Your task to perform on an android device: Open Android settings Image 0: 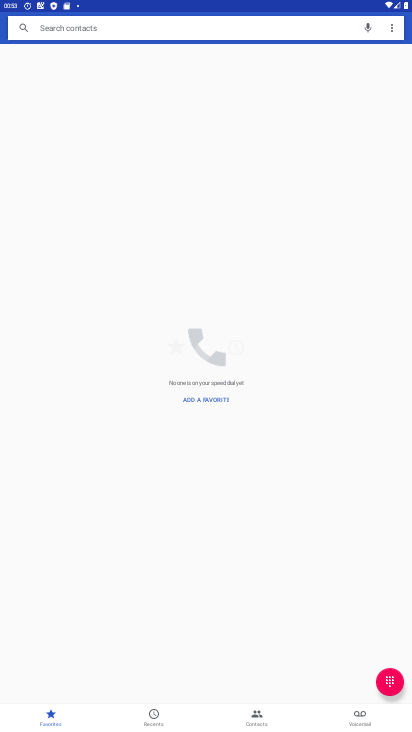
Step 0: press home button
Your task to perform on an android device: Open Android settings Image 1: 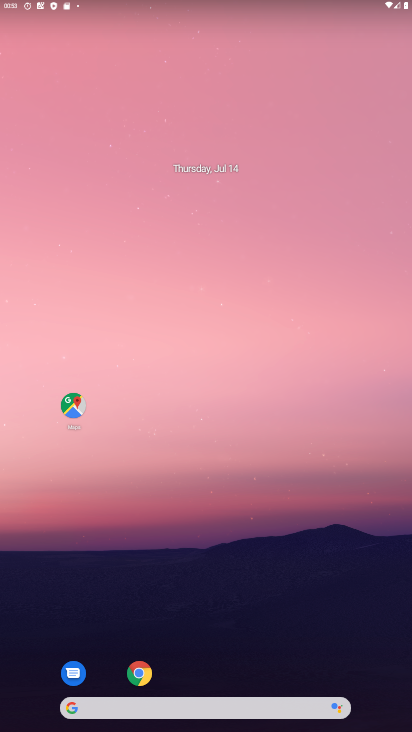
Step 1: drag from (211, 643) to (188, 215)
Your task to perform on an android device: Open Android settings Image 2: 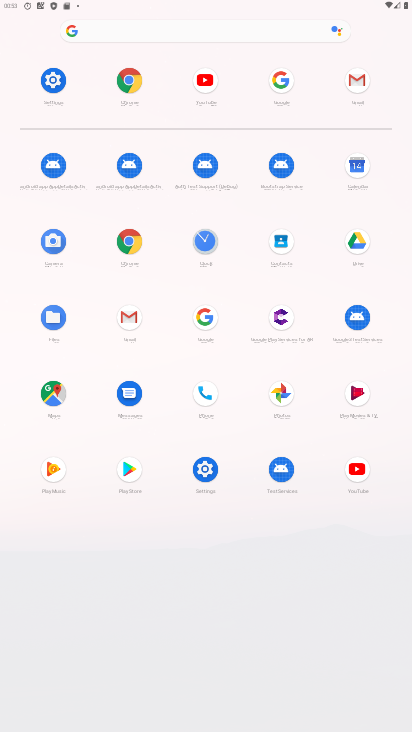
Step 2: click (46, 80)
Your task to perform on an android device: Open Android settings Image 3: 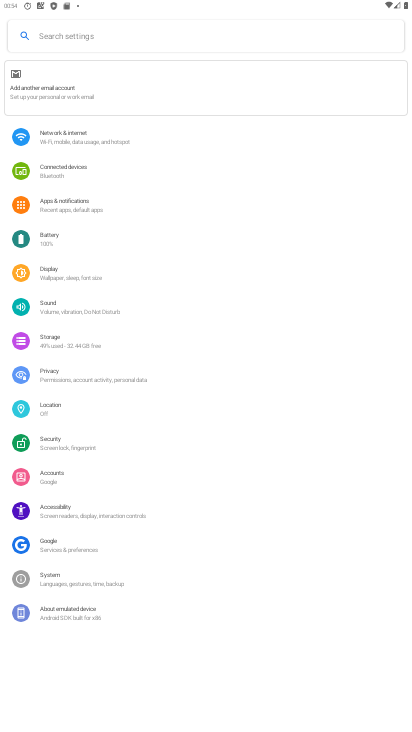
Step 3: task complete